Your task to perform on an android device: turn on the 12-hour format for clock Image 0: 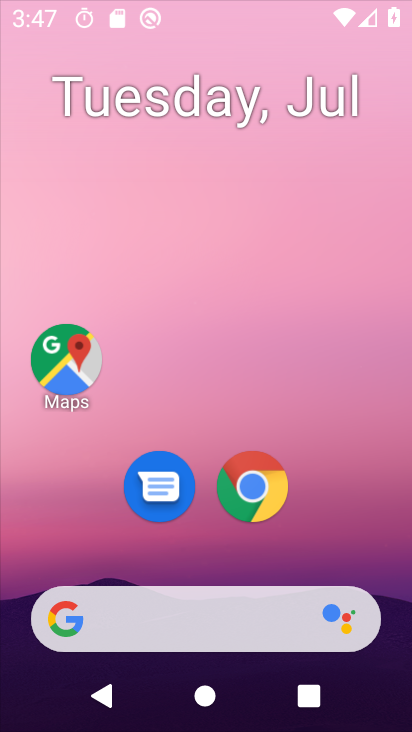
Step 0: press home button
Your task to perform on an android device: turn on the 12-hour format for clock Image 1: 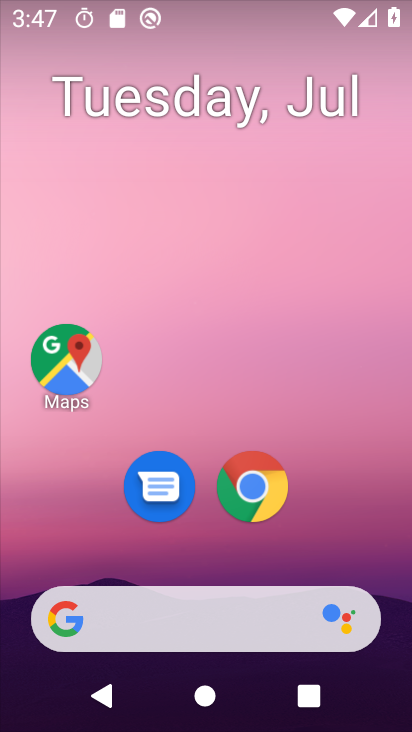
Step 1: drag from (360, 536) to (347, 53)
Your task to perform on an android device: turn on the 12-hour format for clock Image 2: 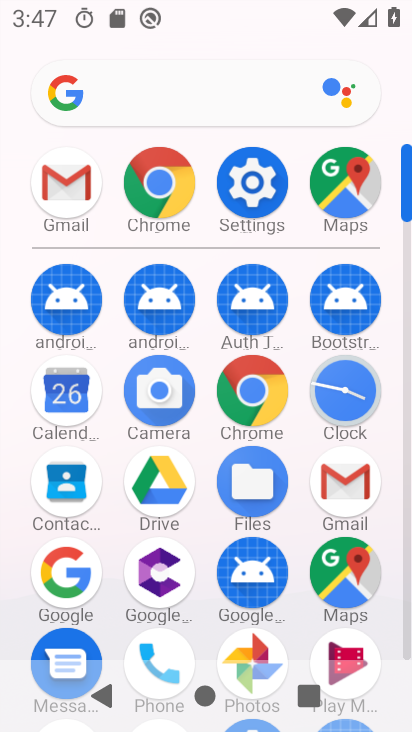
Step 2: click (344, 386)
Your task to perform on an android device: turn on the 12-hour format for clock Image 3: 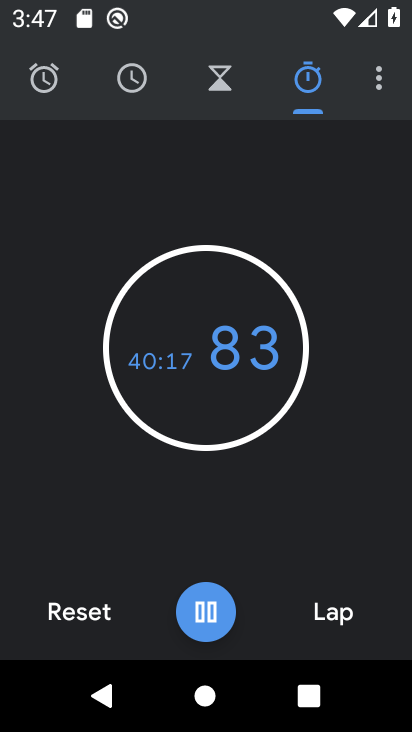
Step 3: click (376, 95)
Your task to perform on an android device: turn on the 12-hour format for clock Image 4: 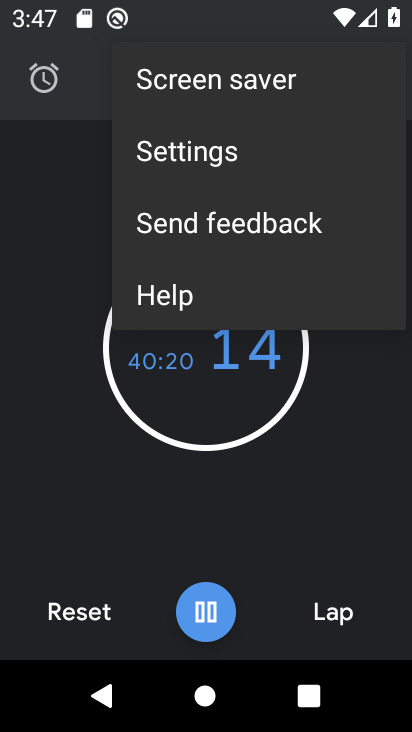
Step 4: click (274, 152)
Your task to perform on an android device: turn on the 12-hour format for clock Image 5: 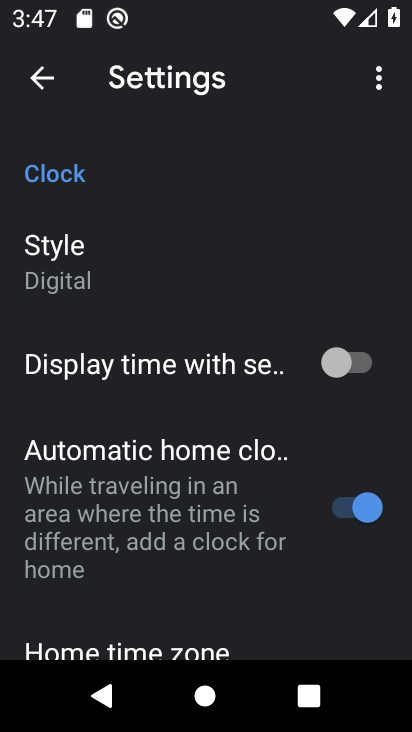
Step 5: drag from (274, 531) to (277, 434)
Your task to perform on an android device: turn on the 12-hour format for clock Image 6: 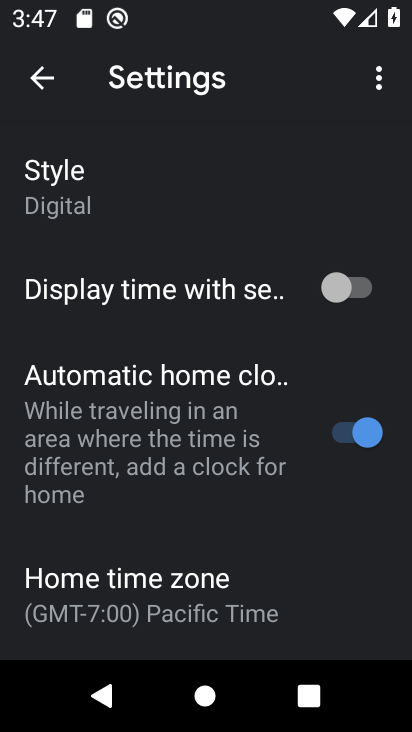
Step 6: drag from (282, 542) to (282, 420)
Your task to perform on an android device: turn on the 12-hour format for clock Image 7: 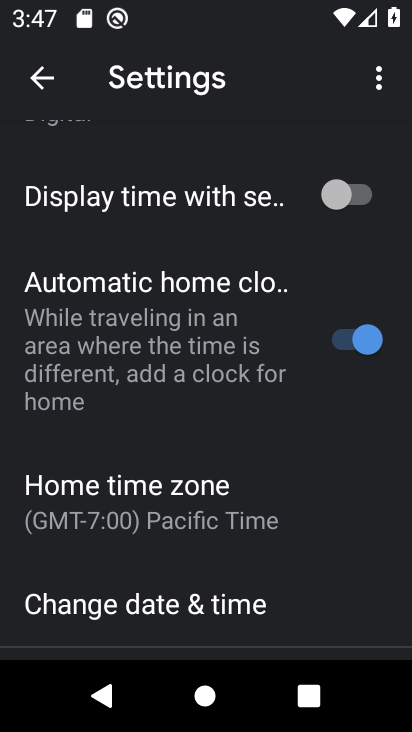
Step 7: drag from (317, 574) to (309, 441)
Your task to perform on an android device: turn on the 12-hour format for clock Image 8: 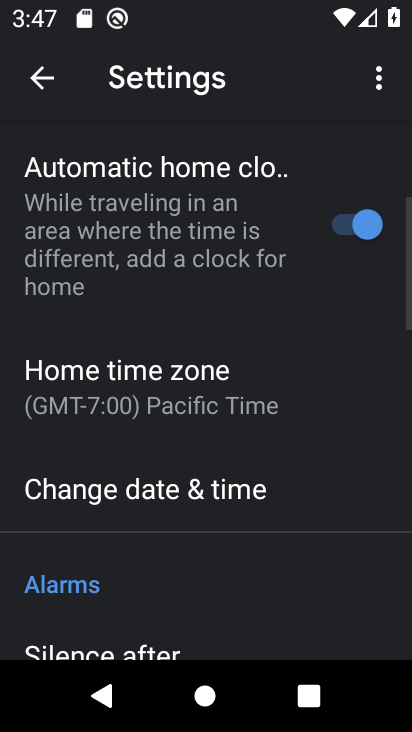
Step 8: drag from (312, 542) to (313, 417)
Your task to perform on an android device: turn on the 12-hour format for clock Image 9: 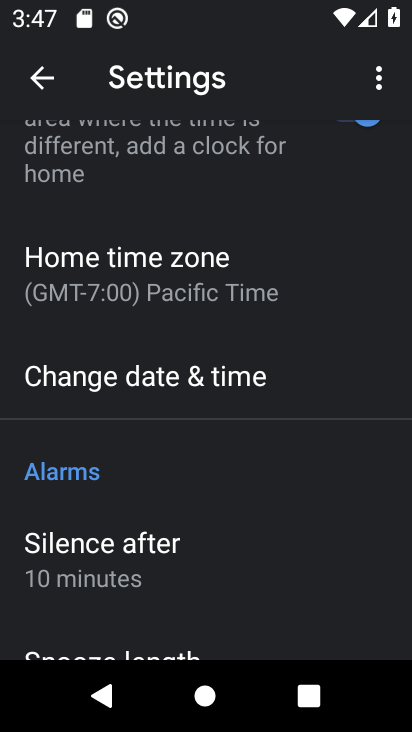
Step 9: drag from (302, 504) to (301, 393)
Your task to perform on an android device: turn on the 12-hour format for clock Image 10: 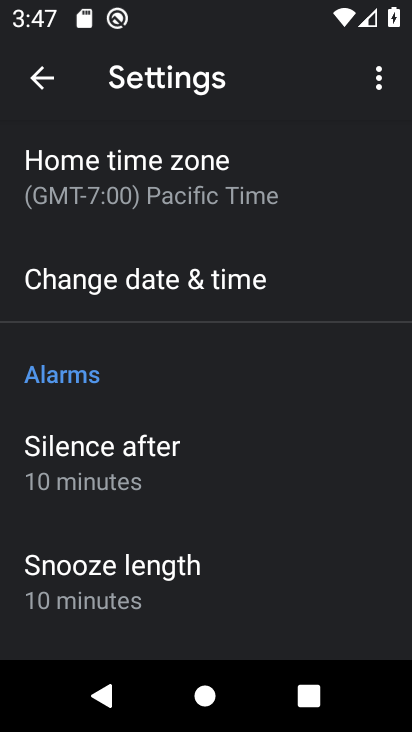
Step 10: click (301, 302)
Your task to perform on an android device: turn on the 12-hour format for clock Image 11: 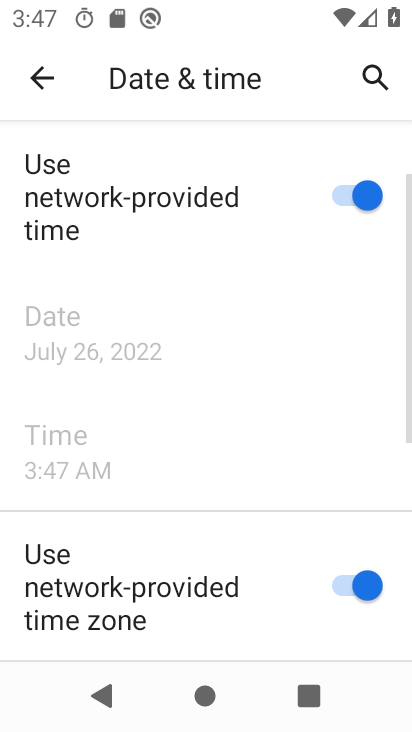
Step 11: task complete